Your task to perform on an android device: turn on bluetooth scan Image 0: 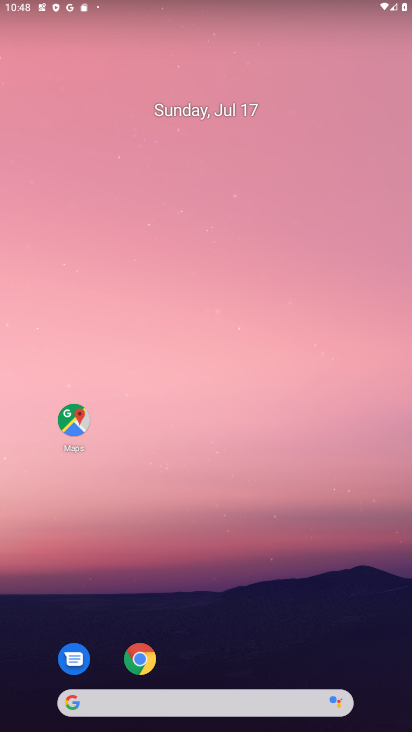
Step 0: drag from (206, 665) to (232, 219)
Your task to perform on an android device: turn on bluetooth scan Image 1: 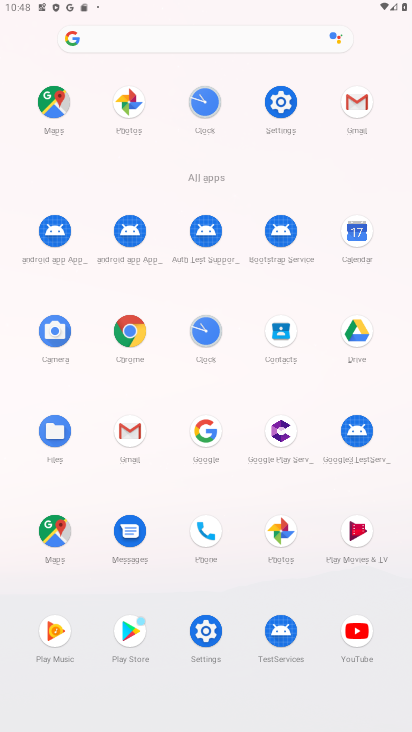
Step 1: click (273, 80)
Your task to perform on an android device: turn on bluetooth scan Image 2: 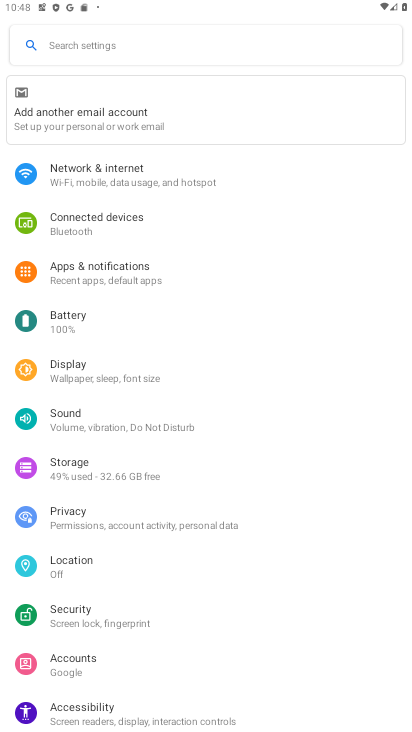
Step 2: click (73, 555)
Your task to perform on an android device: turn on bluetooth scan Image 3: 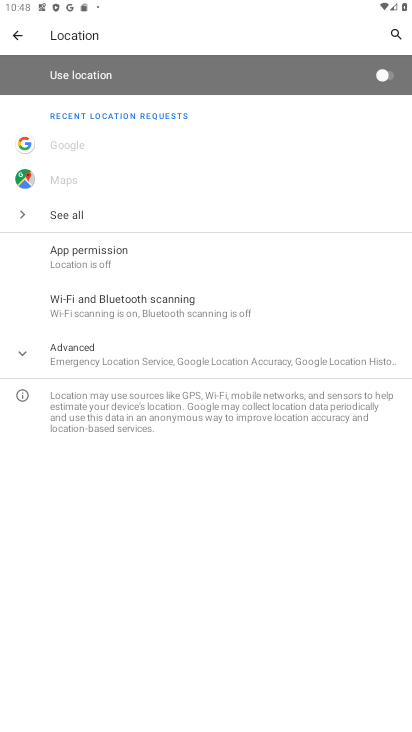
Step 3: click (219, 376)
Your task to perform on an android device: turn on bluetooth scan Image 4: 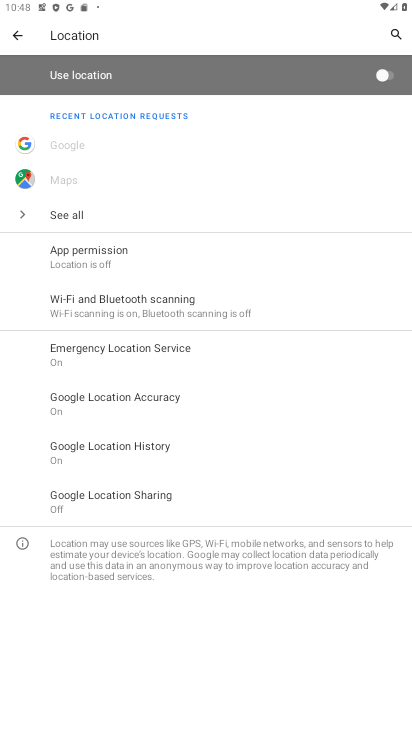
Step 4: click (112, 320)
Your task to perform on an android device: turn on bluetooth scan Image 5: 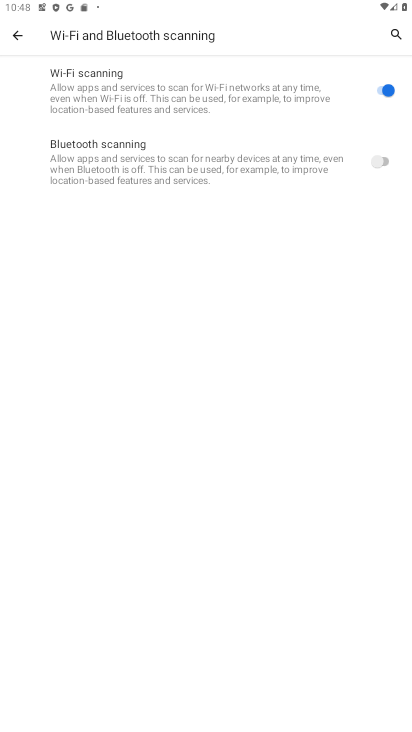
Step 5: click (395, 159)
Your task to perform on an android device: turn on bluetooth scan Image 6: 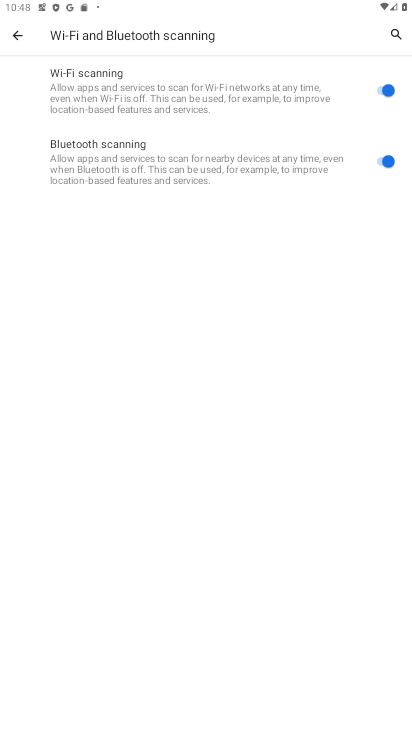
Step 6: task complete